Your task to perform on an android device: Check the news Image 0: 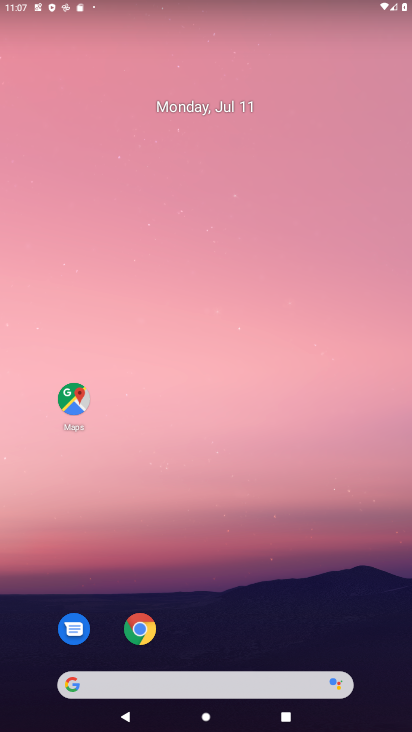
Step 0: drag from (262, 635) to (300, 371)
Your task to perform on an android device: Check the news Image 1: 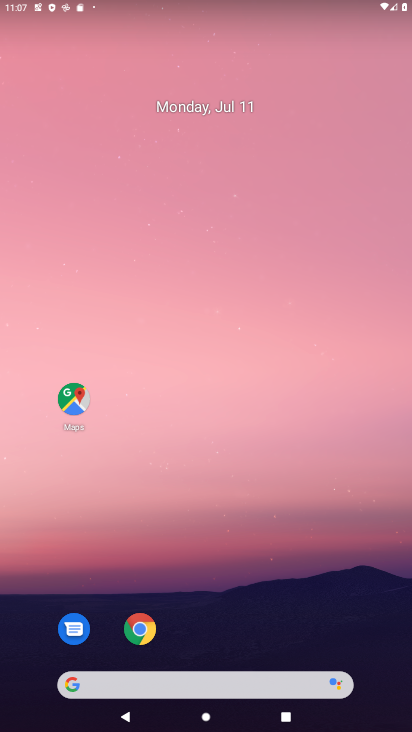
Step 1: click (227, 678)
Your task to perform on an android device: Check the news Image 2: 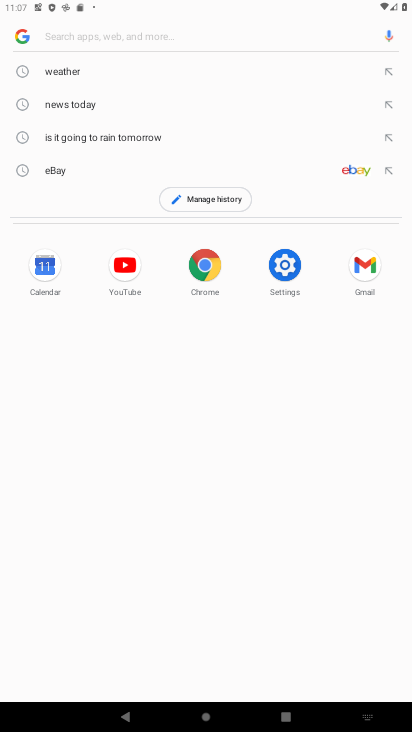
Step 2: click (103, 94)
Your task to perform on an android device: Check the news Image 3: 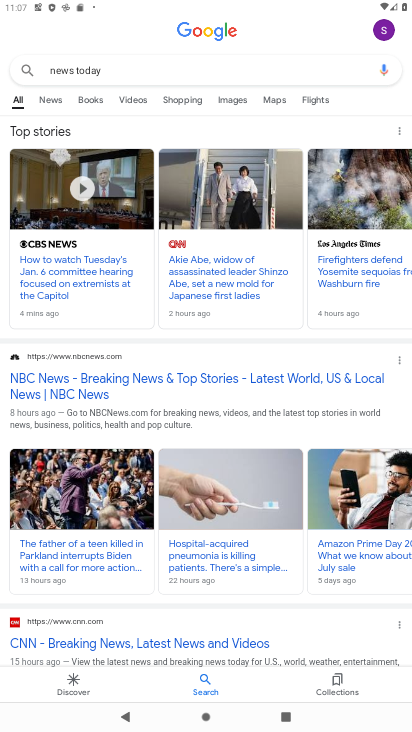
Step 3: task complete